Your task to perform on an android device: change the clock display to show seconds Image 0: 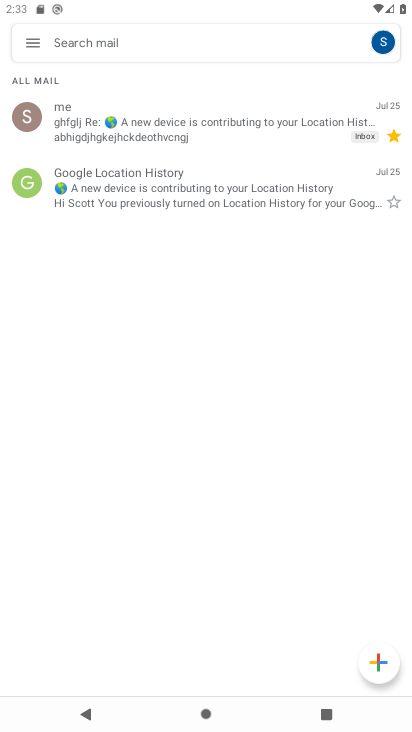
Step 0: press home button
Your task to perform on an android device: change the clock display to show seconds Image 1: 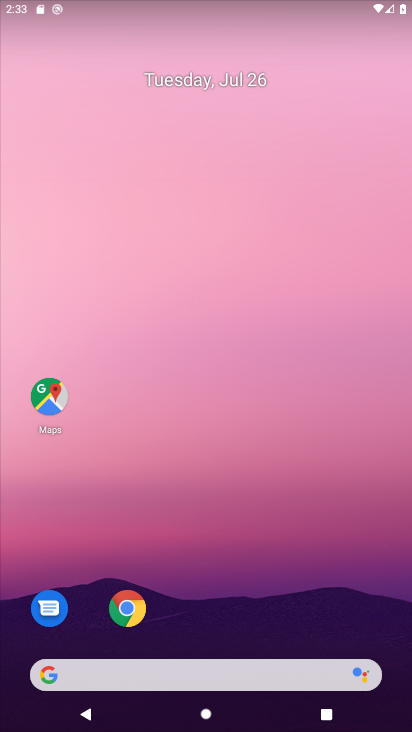
Step 1: drag from (306, 556) to (252, 50)
Your task to perform on an android device: change the clock display to show seconds Image 2: 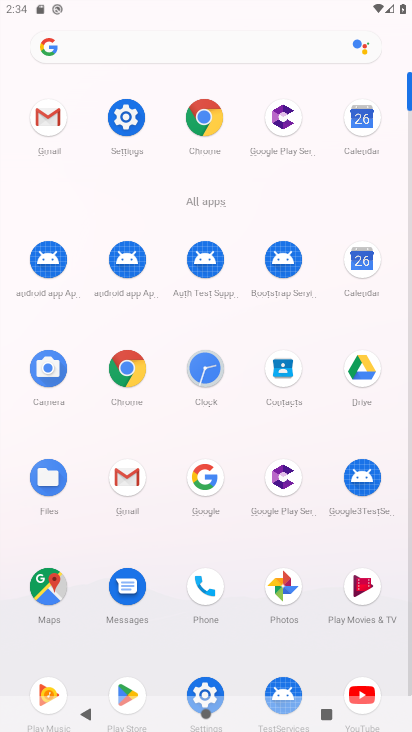
Step 2: click (212, 382)
Your task to perform on an android device: change the clock display to show seconds Image 3: 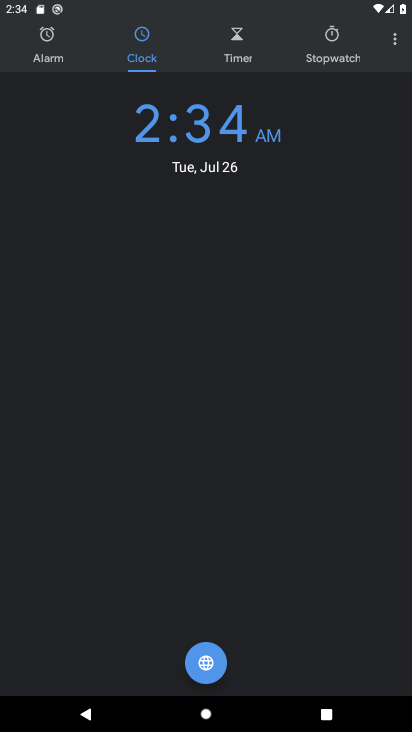
Step 3: click (394, 37)
Your task to perform on an android device: change the clock display to show seconds Image 4: 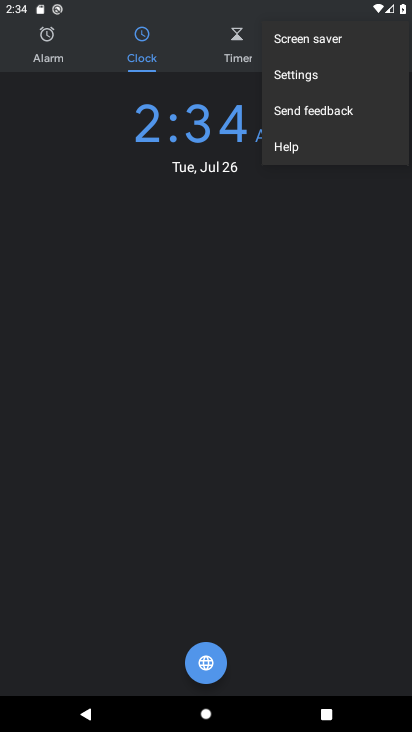
Step 4: click (311, 83)
Your task to perform on an android device: change the clock display to show seconds Image 5: 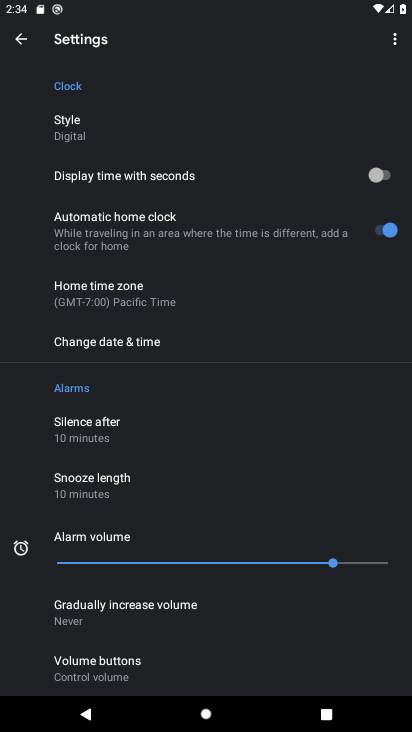
Step 5: click (239, 184)
Your task to perform on an android device: change the clock display to show seconds Image 6: 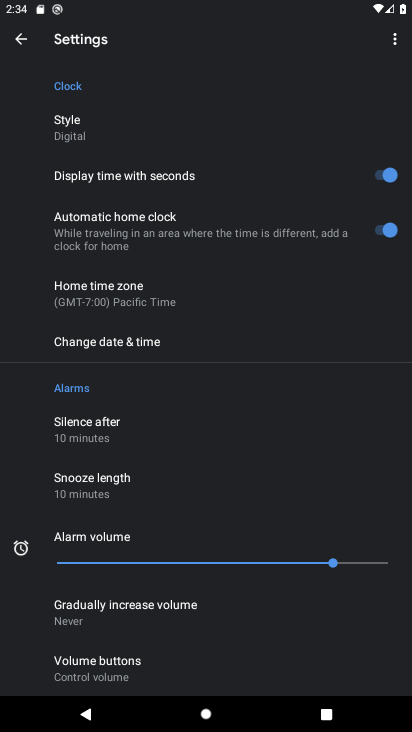
Step 6: task complete